Your task to perform on an android device: Open Android settings Image 0: 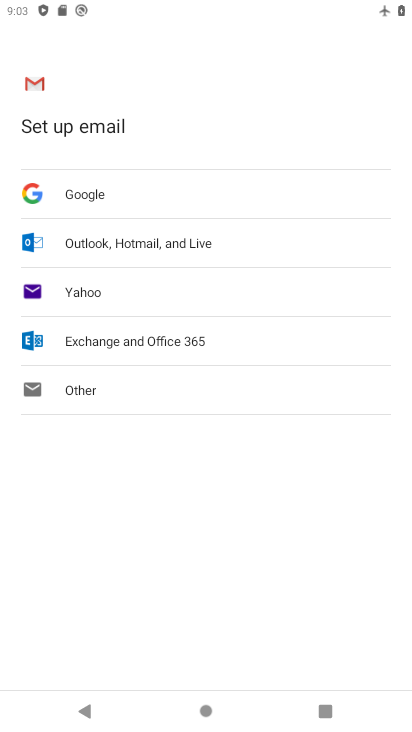
Step 0: press home button
Your task to perform on an android device: Open Android settings Image 1: 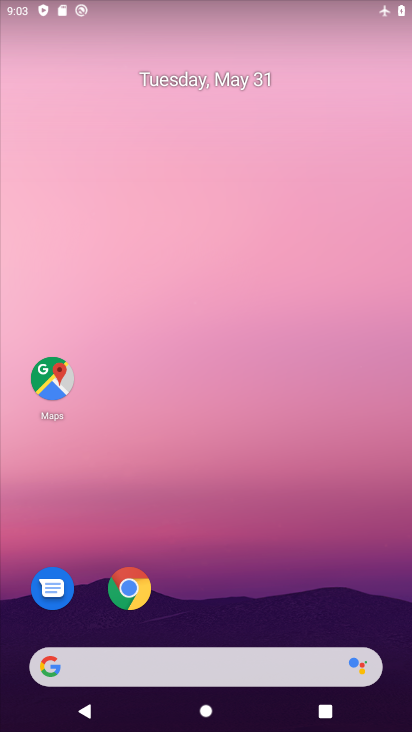
Step 1: drag from (250, 707) to (262, 9)
Your task to perform on an android device: Open Android settings Image 2: 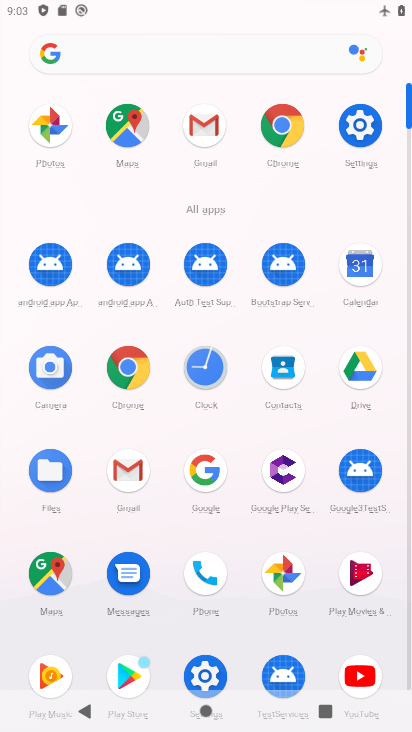
Step 2: click (361, 131)
Your task to perform on an android device: Open Android settings Image 3: 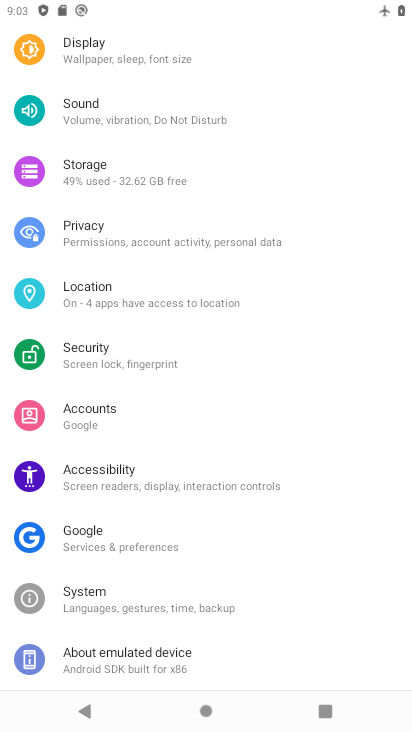
Step 3: drag from (250, 403) to (317, 8)
Your task to perform on an android device: Open Android settings Image 4: 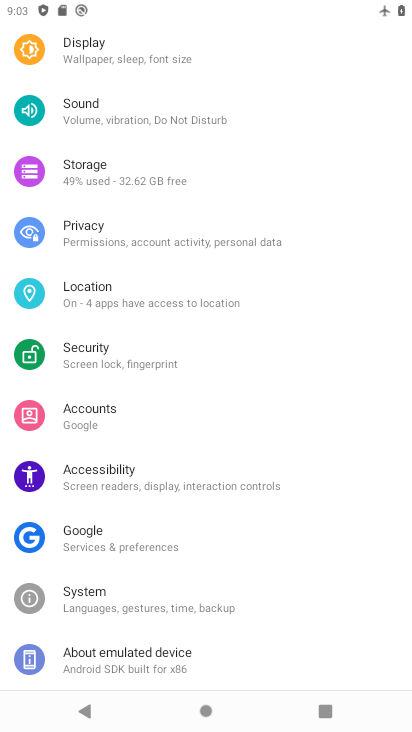
Step 4: click (214, 655)
Your task to perform on an android device: Open Android settings Image 5: 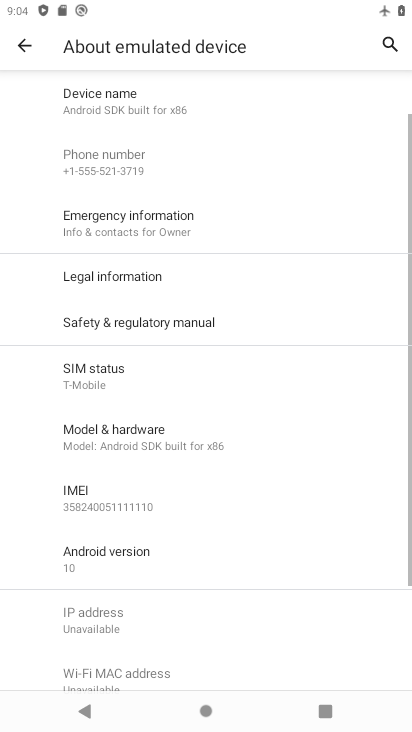
Step 5: task complete